Your task to perform on an android device: Open location settings Image 0: 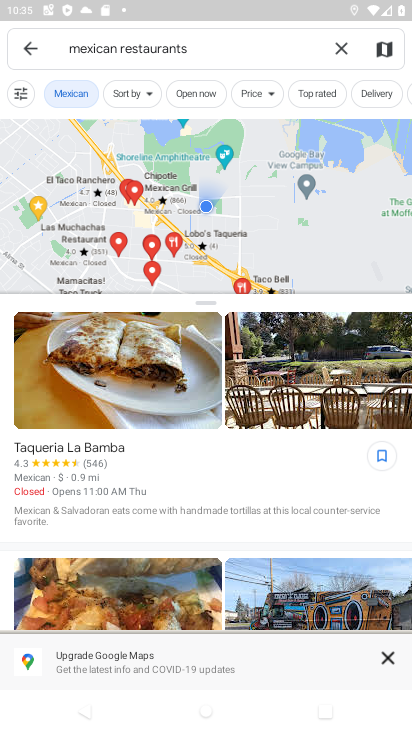
Step 0: press home button
Your task to perform on an android device: Open location settings Image 1: 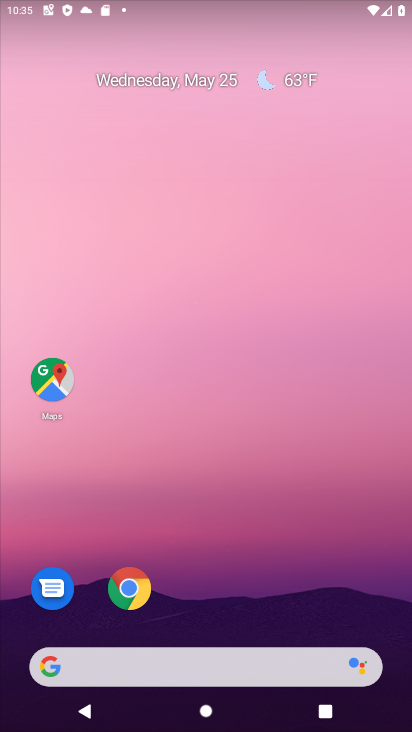
Step 1: drag from (311, 608) to (364, 15)
Your task to perform on an android device: Open location settings Image 2: 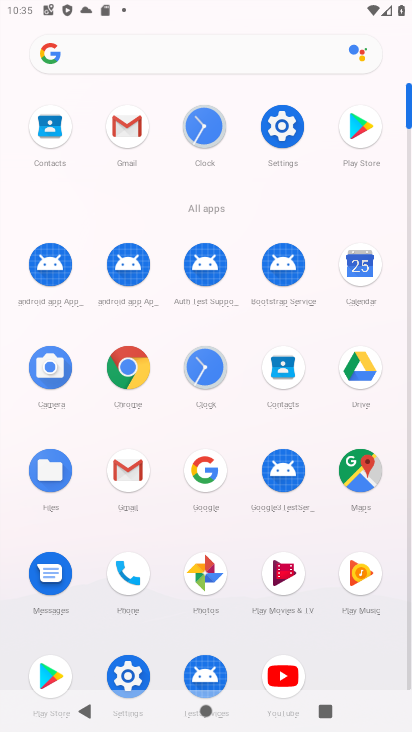
Step 2: click (132, 662)
Your task to perform on an android device: Open location settings Image 3: 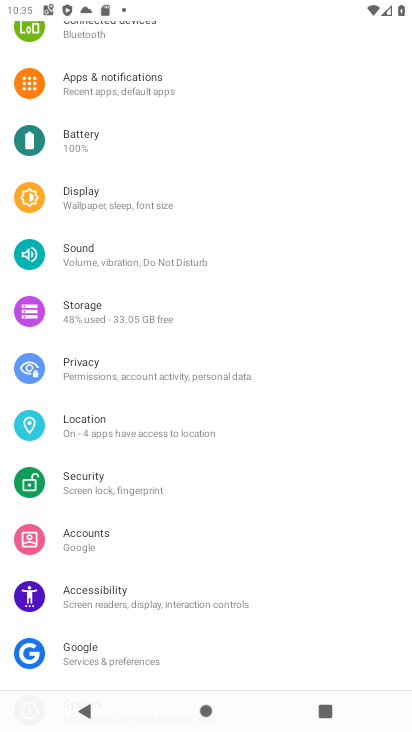
Step 3: click (157, 420)
Your task to perform on an android device: Open location settings Image 4: 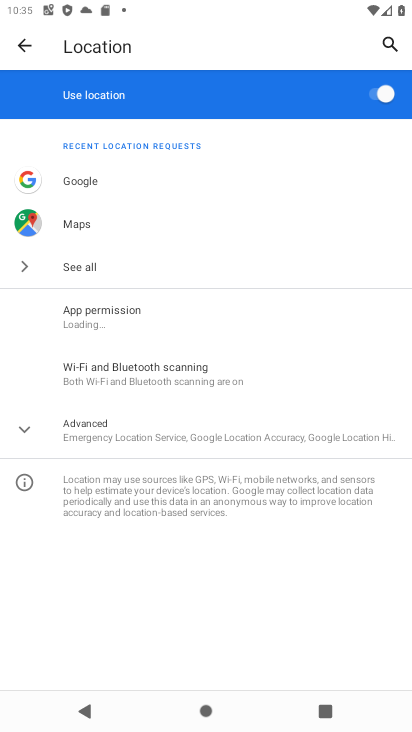
Step 4: task complete